Your task to perform on an android device: Open maps Image 0: 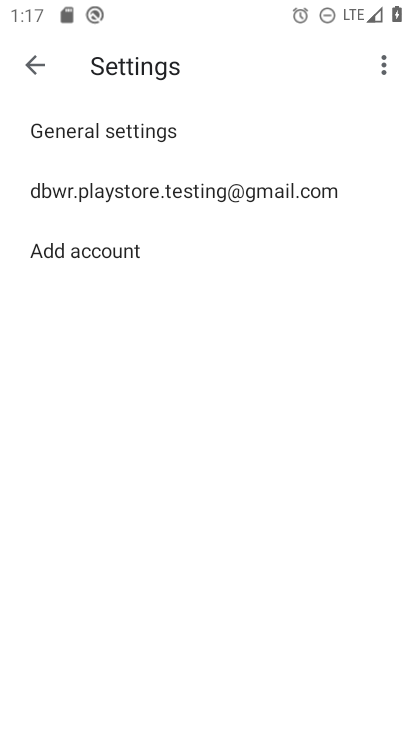
Step 0: press home button
Your task to perform on an android device: Open maps Image 1: 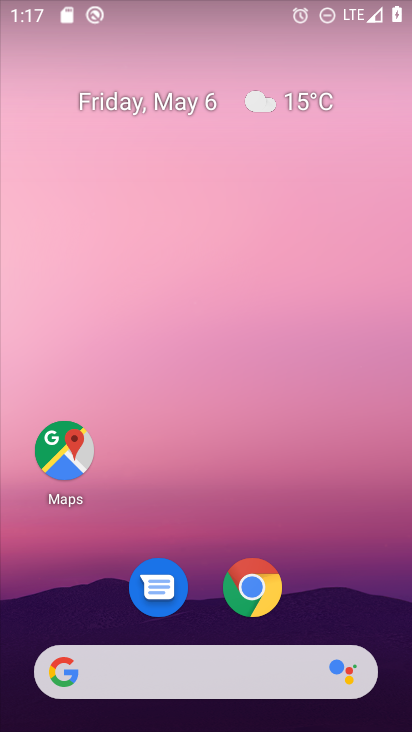
Step 1: click (67, 453)
Your task to perform on an android device: Open maps Image 2: 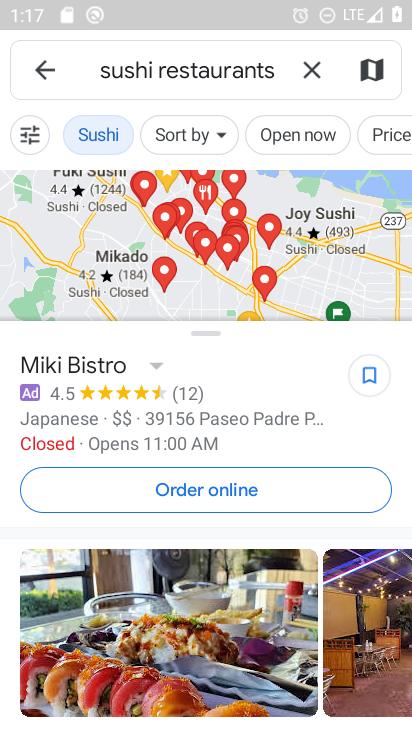
Step 2: task complete